Your task to perform on an android device: snooze an email in the gmail app Image 0: 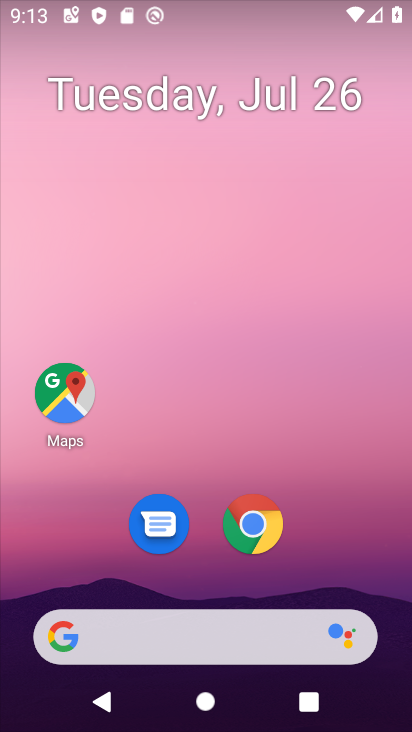
Step 0: press home button
Your task to perform on an android device: snooze an email in the gmail app Image 1: 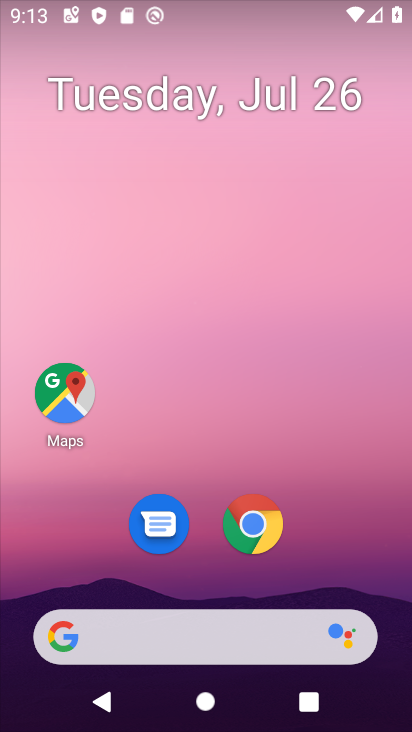
Step 1: drag from (167, 631) to (321, 30)
Your task to perform on an android device: snooze an email in the gmail app Image 2: 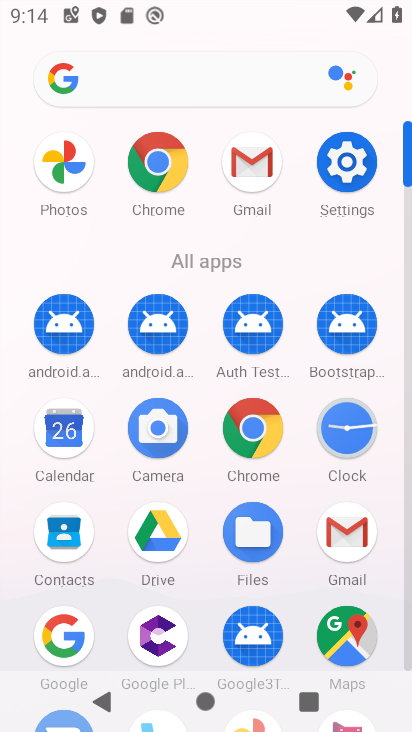
Step 2: click (256, 177)
Your task to perform on an android device: snooze an email in the gmail app Image 3: 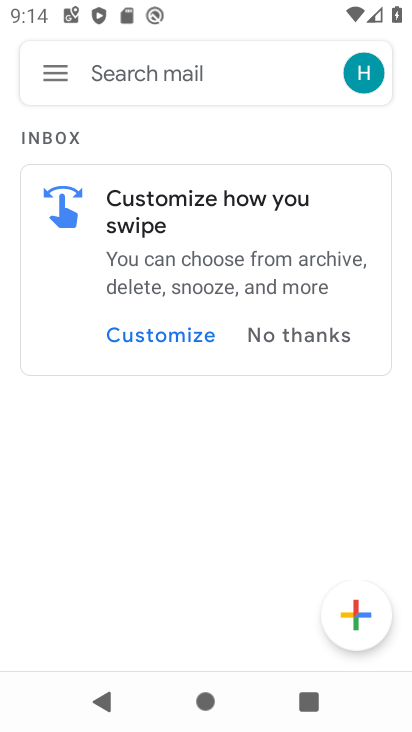
Step 3: click (58, 67)
Your task to perform on an android device: snooze an email in the gmail app Image 4: 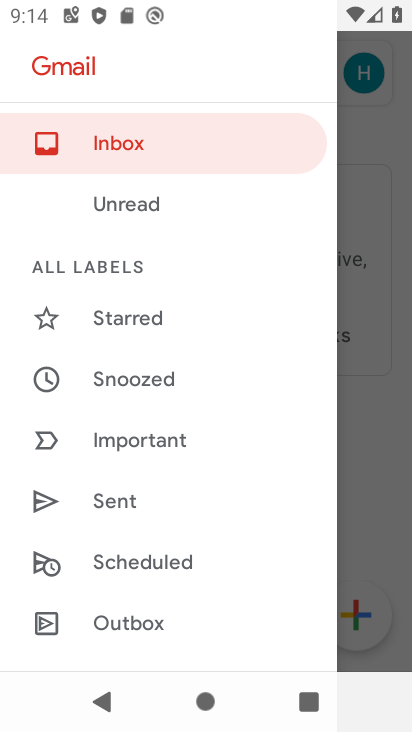
Step 4: drag from (223, 573) to (277, 209)
Your task to perform on an android device: snooze an email in the gmail app Image 5: 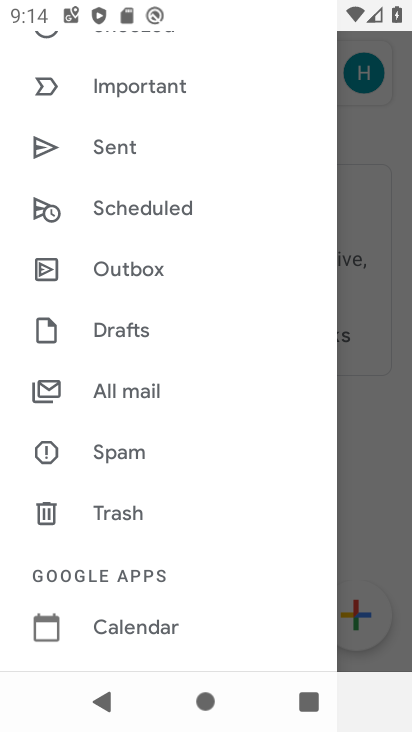
Step 5: click (124, 399)
Your task to perform on an android device: snooze an email in the gmail app Image 6: 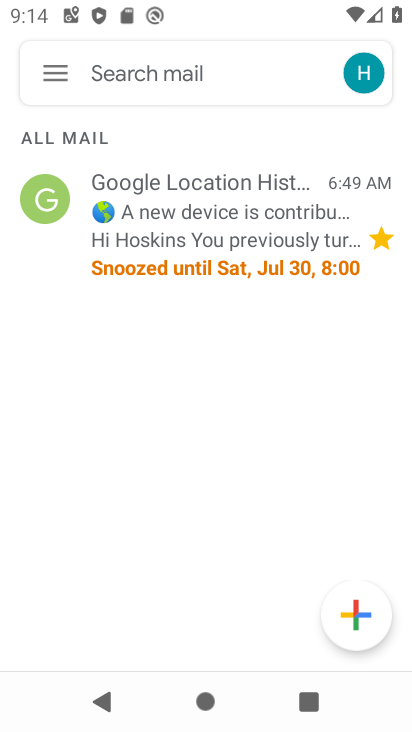
Step 6: click (53, 199)
Your task to perform on an android device: snooze an email in the gmail app Image 7: 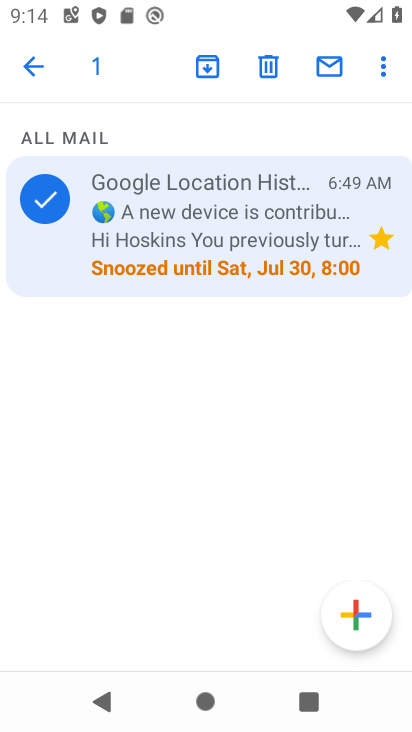
Step 7: click (379, 62)
Your task to perform on an android device: snooze an email in the gmail app Image 8: 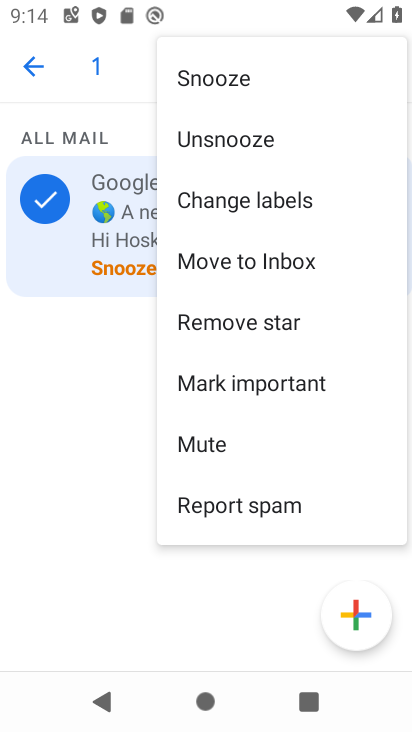
Step 8: click (214, 79)
Your task to perform on an android device: snooze an email in the gmail app Image 9: 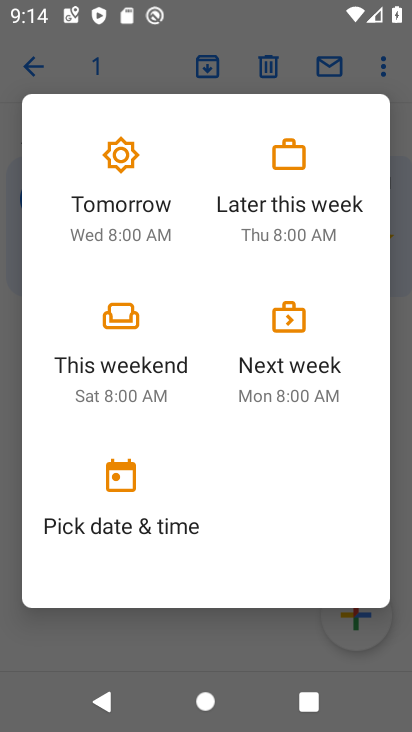
Step 9: click (291, 376)
Your task to perform on an android device: snooze an email in the gmail app Image 10: 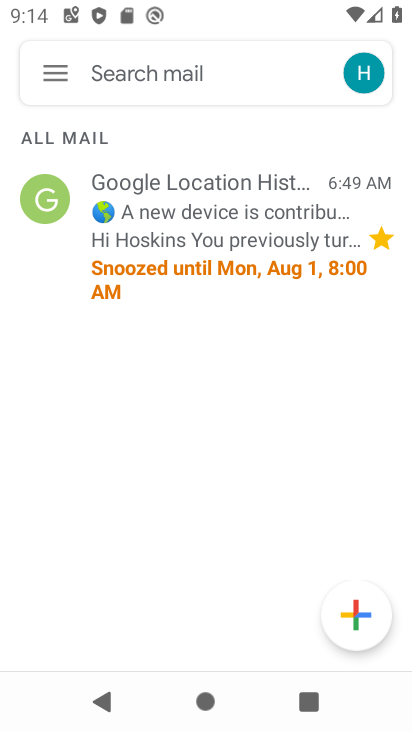
Step 10: task complete